Your task to perform on an android device: search for accent chairs on article.com Image 0: 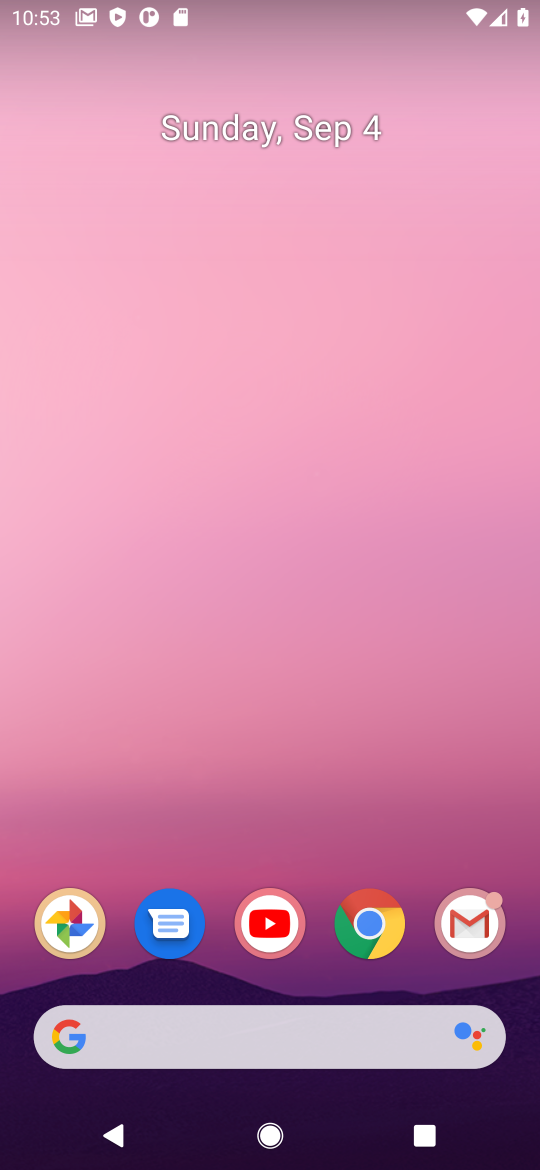
Step 0: click (360, 921)
Your task to perform on an android device: search for accent chairs on article.com Image 1: 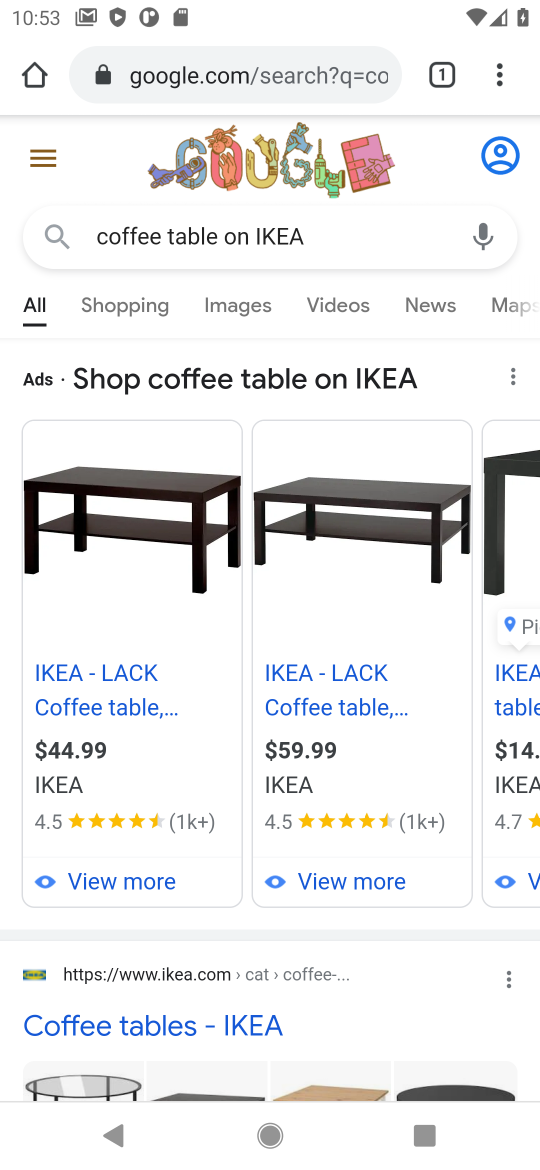
Step 1: click (202, 64)
Your task to perform on an android device: search for accent chairs on article.com Image 2: 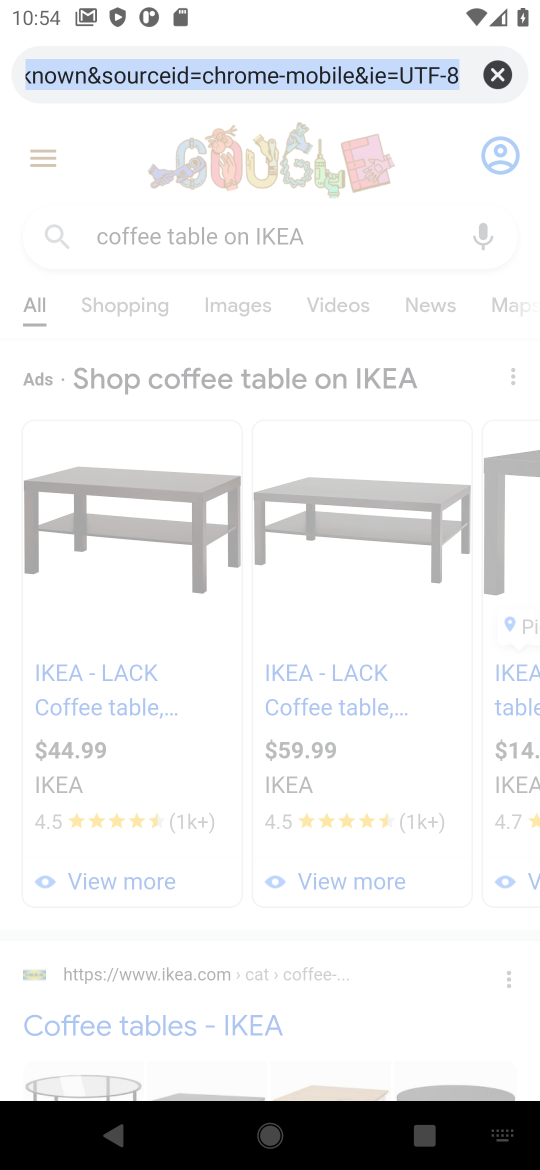
Step 2: click (502, 75)
Your task to perform on an android device: search for accent chairs on article.com Image 3: 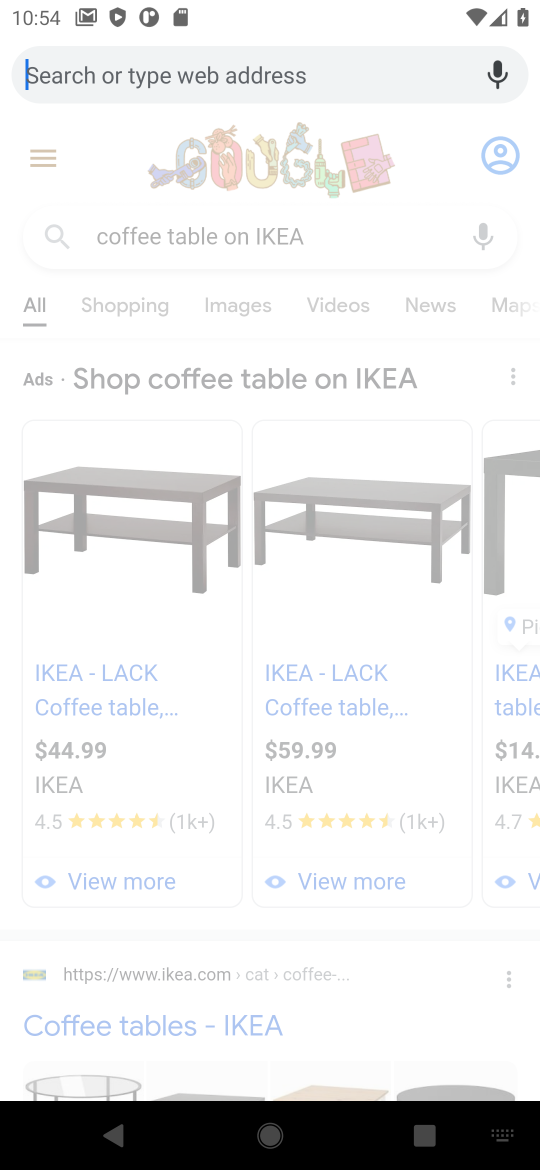
Step 3: type "accent chairs on article.com"
Your task to perform on an android device: search for accent chairs on article.com Image 4: 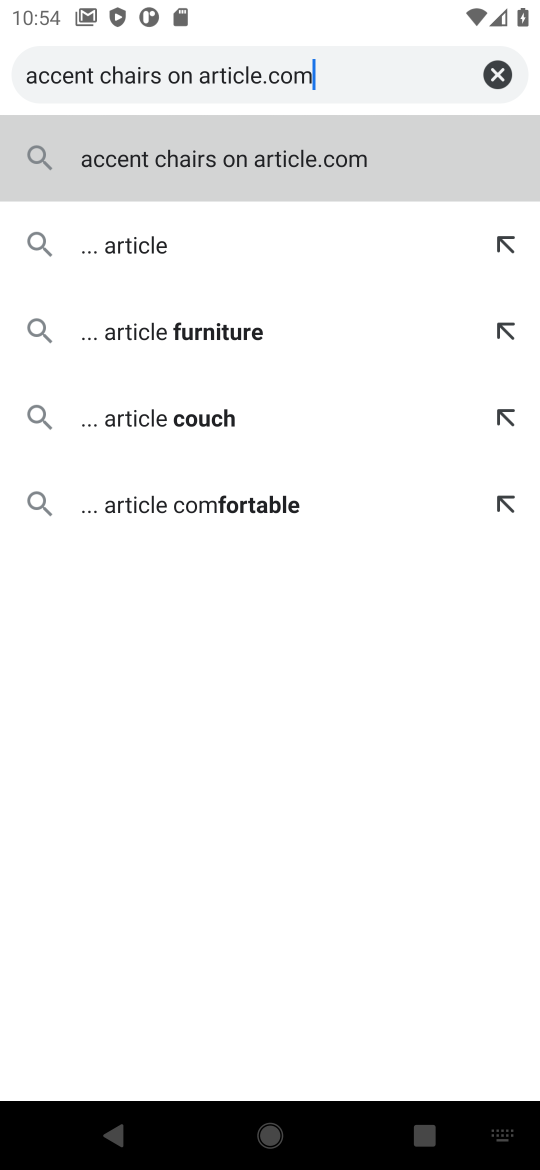
Step 4: click (301, 158)
Your task to perform on an android device: search for accent chairs on article.com Image 5: 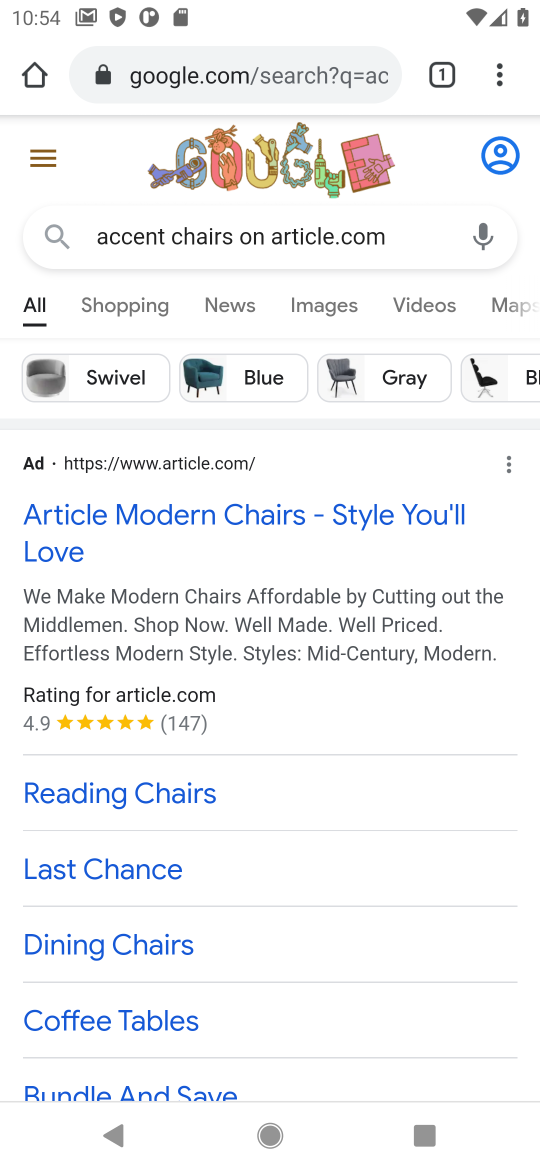
Step 5: task complete